Your task to perform on an android device: Look up the best rated headphones on Amazon. Image 0: 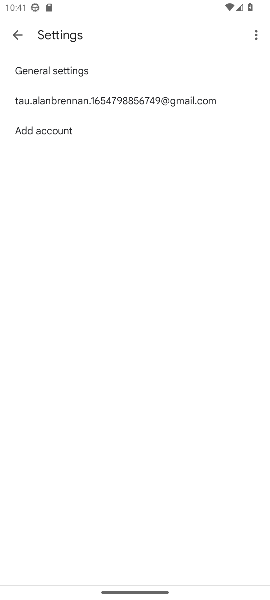
Step 0: press home button
Your task to perform on an android device: Look up the best rated headphones on Amazon. Image 1: 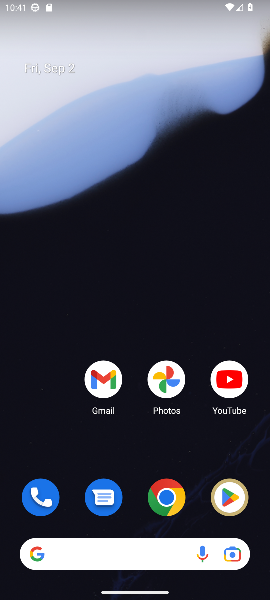
Step 1: drag from (138, 514) to (118, 23)
Your task to perform on an android device: Look up the best rated headphones on Amazon. Image 2: 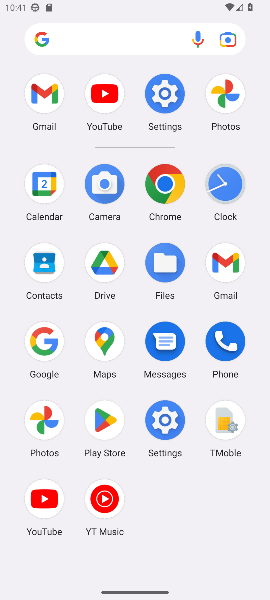
Step 2: click (39, 355)
Your task to perform on an android device: Look up the best rated headphones on Amazon. Image 3: 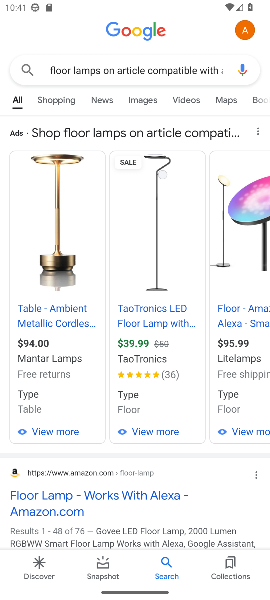
Step 3: click (205, 77)
Your task to perform on an android device: Look up the best rated headphones on Amazon. Image 4: 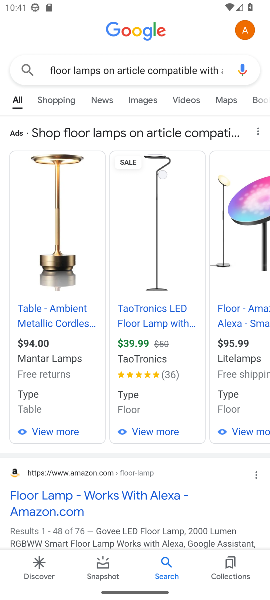
Step 4: click (205, 77)
Your task to perform on an android device: Look up the best rated headphones on Amazon. Image 5: 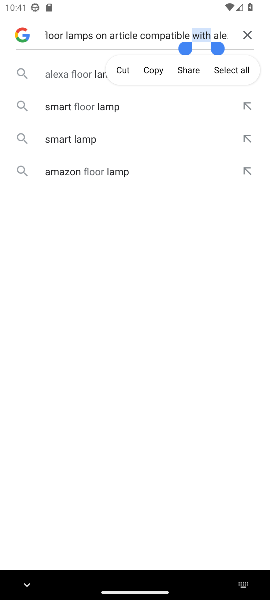
Step 5: click (245, 35)
Your task to perform on an android device: Look up the best rated headphones on Amazon. Image 6: 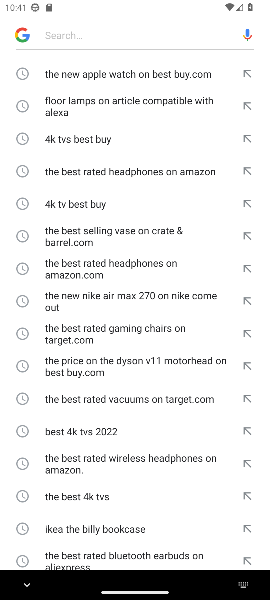
Step 6: type "the best rated headphones on Amazon."
Your task to perform on an android device: Look up the best rated headphones on Amazon. Image 7: 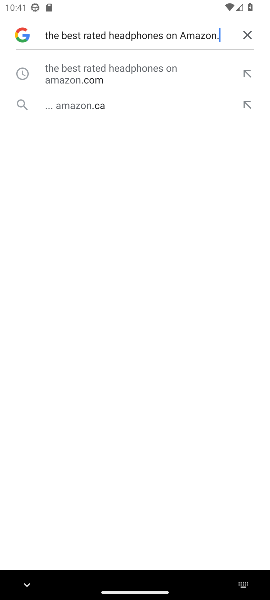
Step 7: click (147, 64)
Your task to perform on an android device: Look up the best rated headphones on Amazon. Image 8: 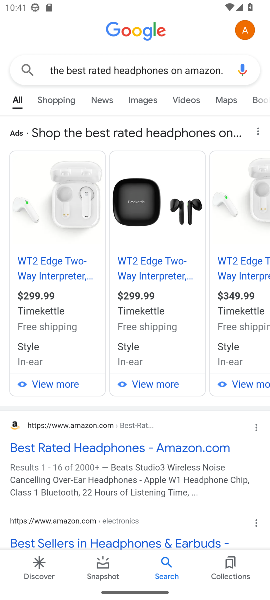
Step 8: task complete